Your task to perform on an android device: turn on improve location accuracy Image 0: 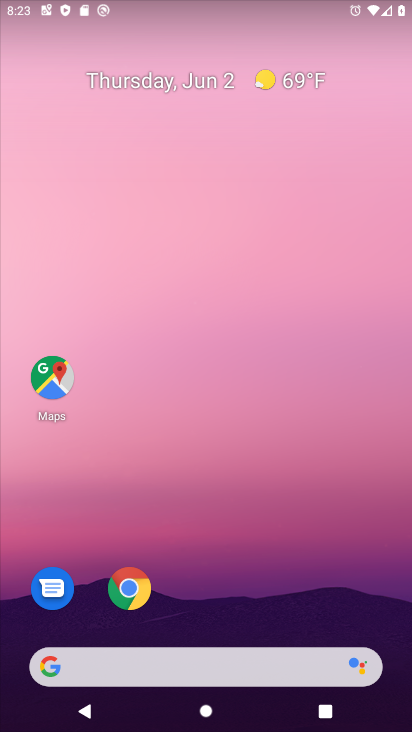
Step 0: drag from (239, 723) to (240, 74)
Your task to perform on an android device: turn on improve location accuracy Image 1: 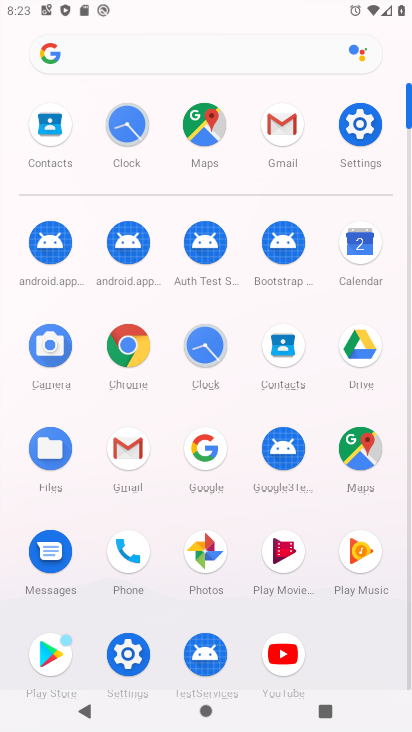
Step 1: click (354, 124)
Your task to perform on an android device: turn on improve location accuracy Image 2: 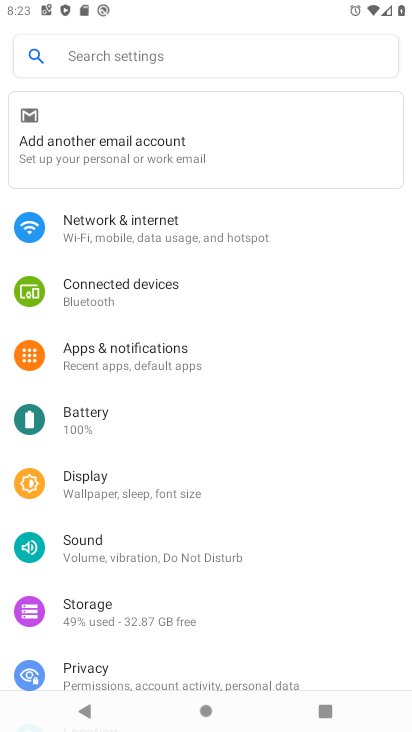
Step 2: drag from (176, 670) to (177, 296)
Your task to perform on an android device: turn on improve location accuracy Image 3: 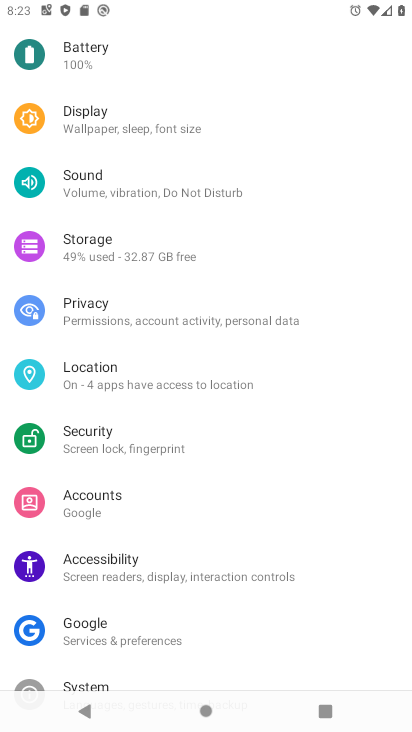
Step 3: click (102, 383)
Your task to perform on an android device: turn on improve location accuracy Image 4: 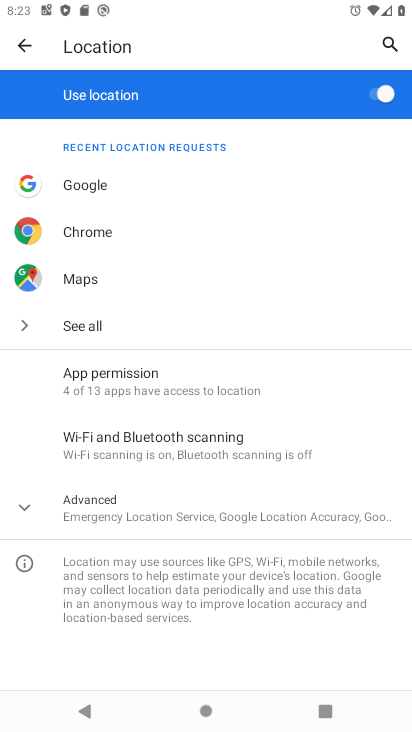
Step 4: click (109, 506)
Your task to perform on an android device: turn on improve location accuracy Image 5: 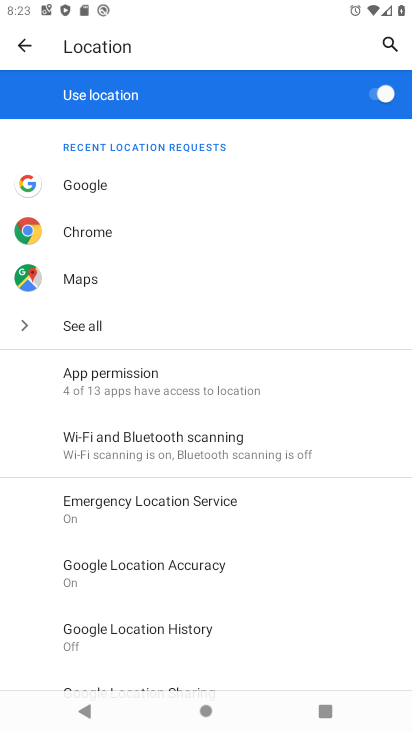
Step 5: click (122, 565)
Your task to perform on an android device: turn on improve location accuracy Image 6: 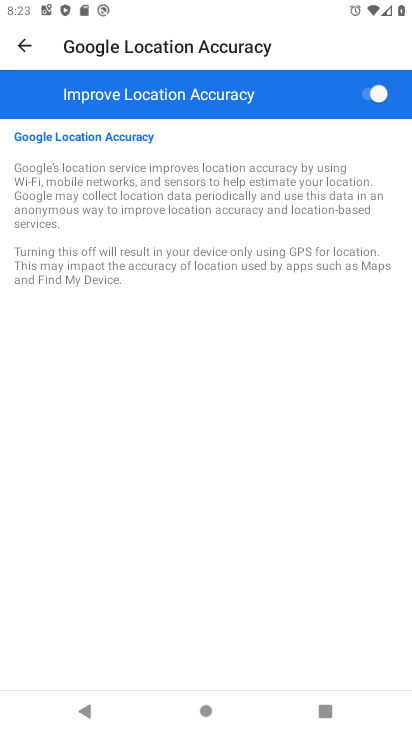
Step 6: task complete